Your task to perform on an android device: add a contact Image 0: 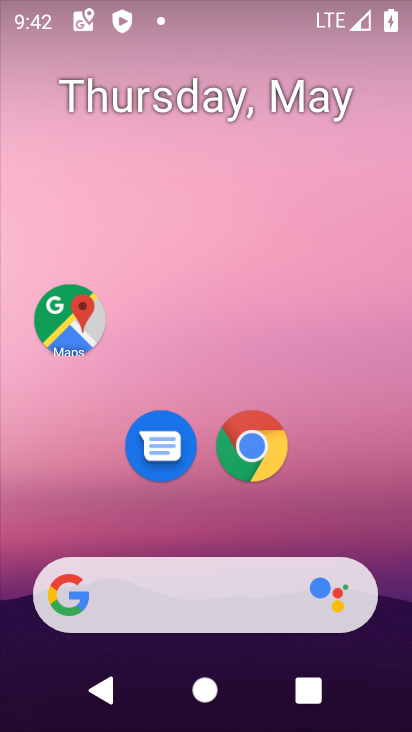
Step 0: drag from (382, 616) to (254, 25)
Your task to perform on an android device: add a contact Image 1: 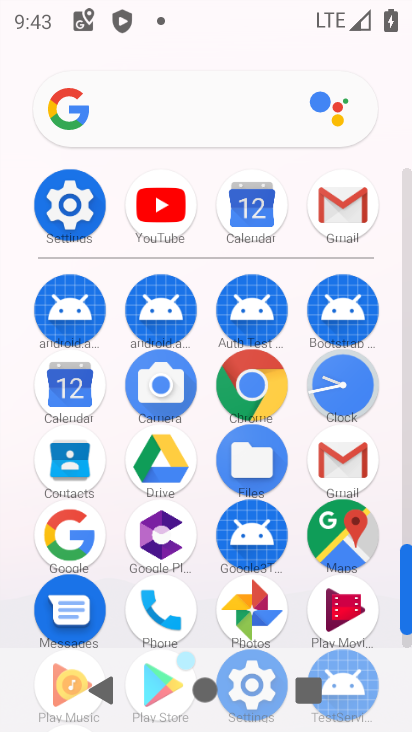
Step 1: click (406, 642)
Your task to perform on an android device: add a contact Image 2: 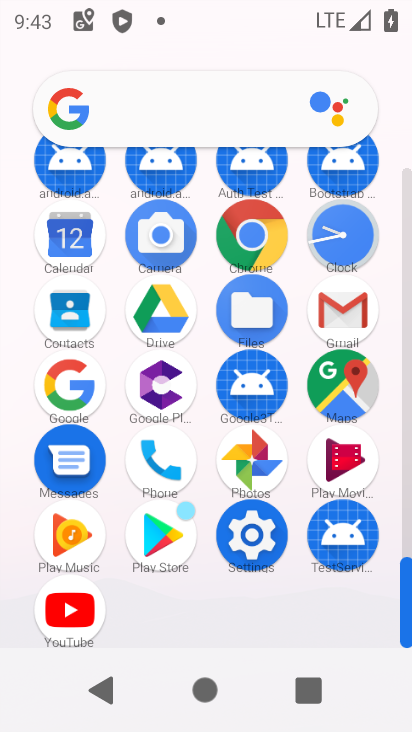
Step 2: click (65, 318)
Your task to perform on an android device: add a contact Image 3: 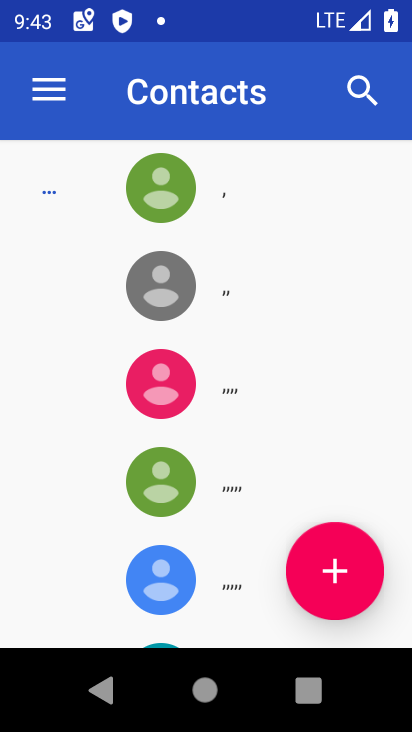
Step 3: click (336, 567)
Your task to perform on an android device: add a contact Image 4: 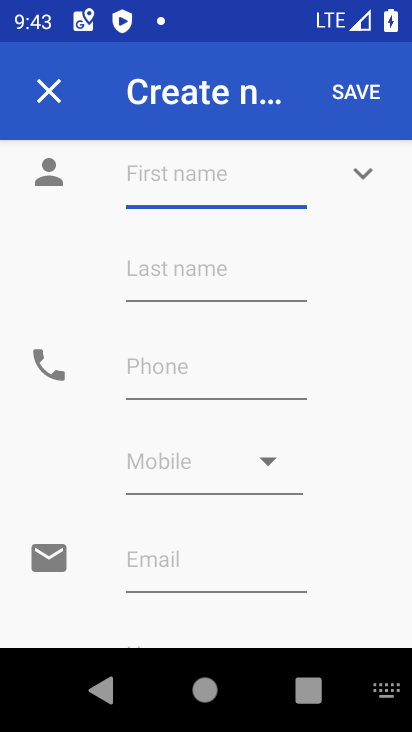
Step 4: type "hfgfhdgsf"
Your task to perform on an android device: add a contact Image 5: 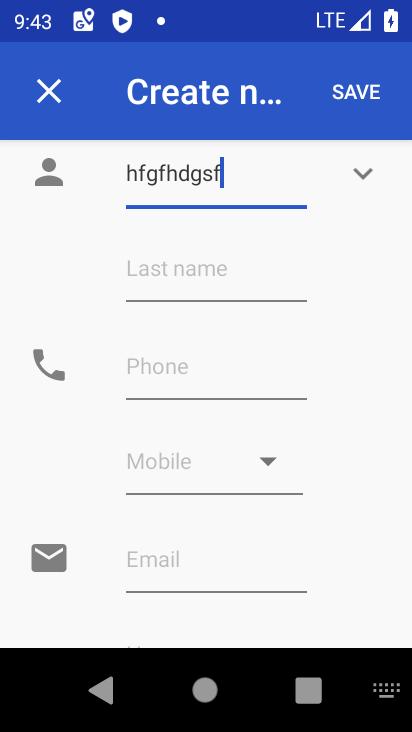
Step 5: click (182, 360)
Your task to perform on an android device: add a contact Image 6: 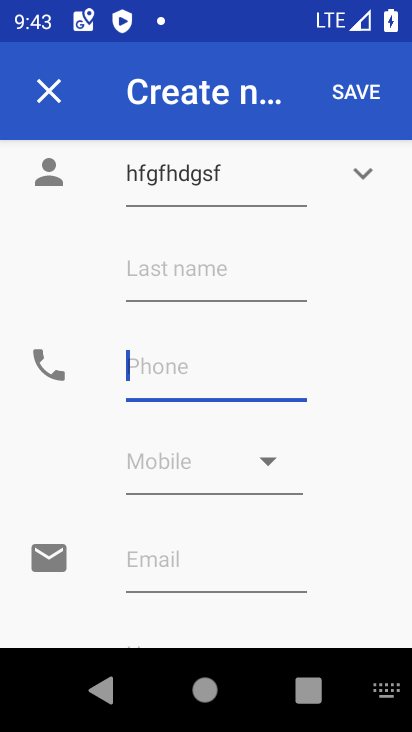
Step 6: type "756653458"
Your task to perform on an android device: add a contact Image 7: 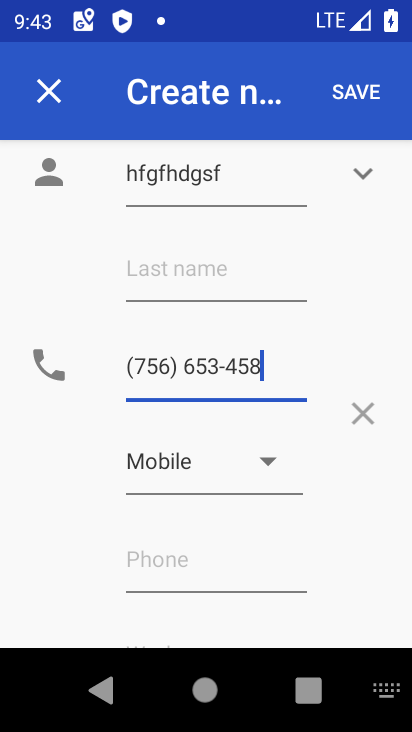
Step 7: click (257, 462)
Your task to perform on an android device: add a contact Image 8: 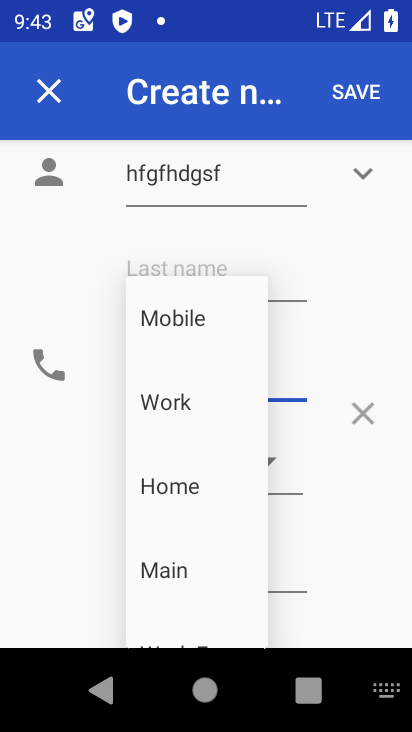
Step 8: click (164, 411)
Your task to perform on an android device: add a contact Image 9: 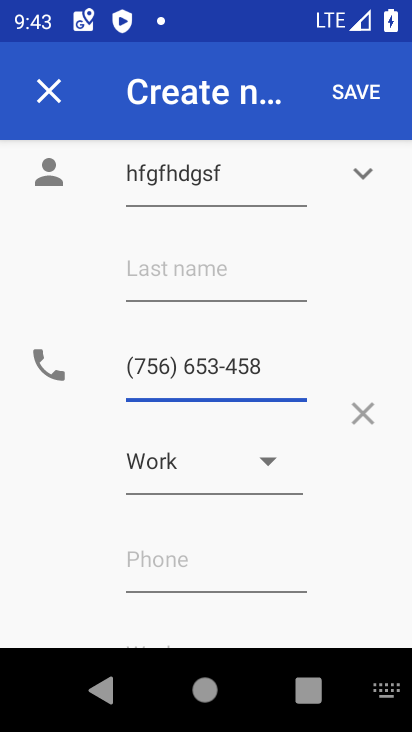
Step 9: click (349, 89)
Your task to perform on an android device: add a contact Image 10: 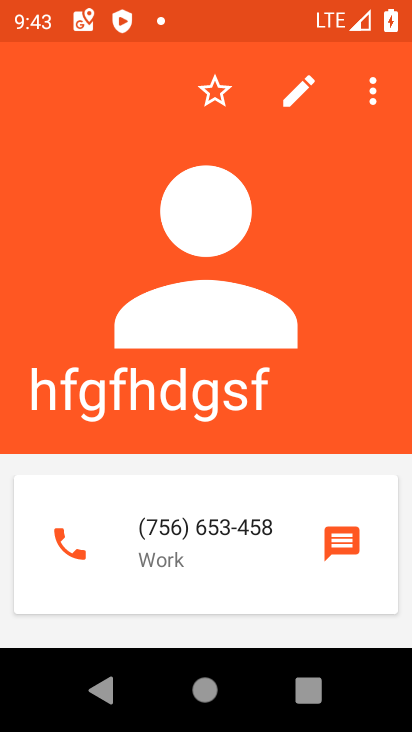
Step 10: task complete